Your task to perform on an android device: turn on wifi Image 0: 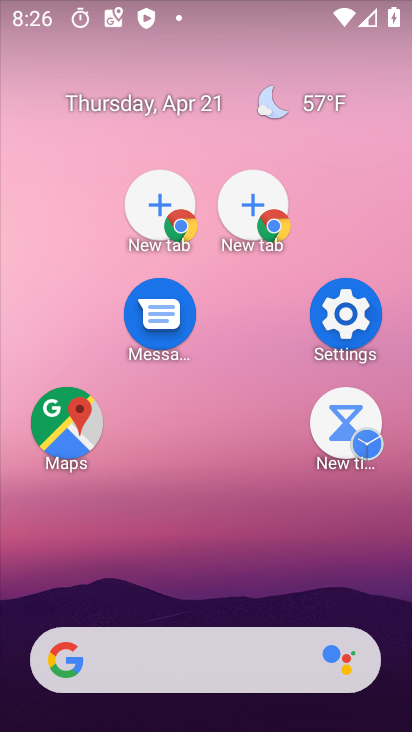
Step 0: drag from (333, 731) to (233, 23)
Your task to perform on an android device: turn on wifi Image 1: 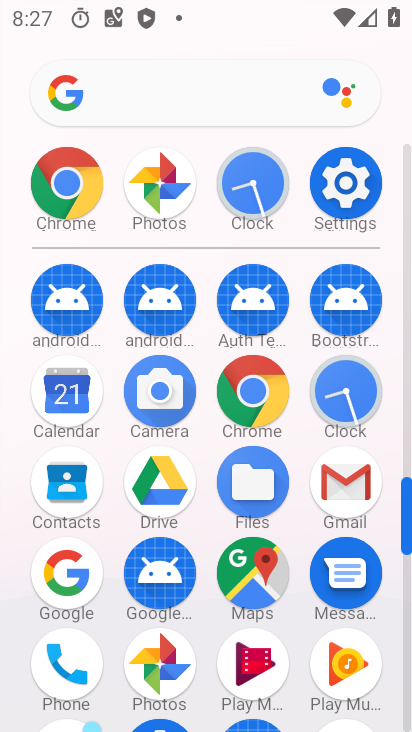
Step 1: click (360, 177)
Your task to perform on an android device: turn on wifi Image 2: 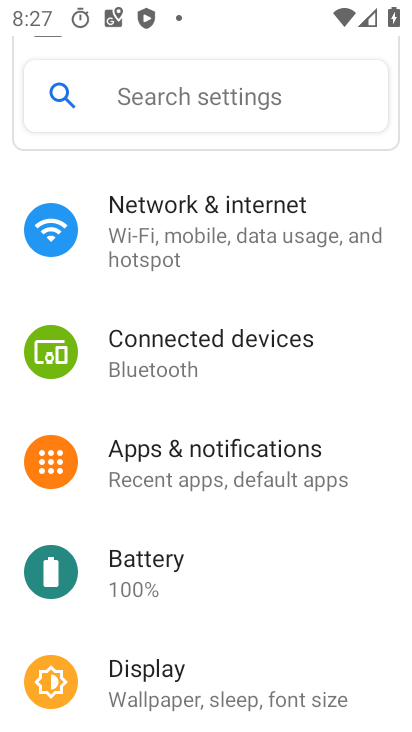
Step 2: click (202, 225)
Your task to perform on an android device: turn on wifi Image 3: 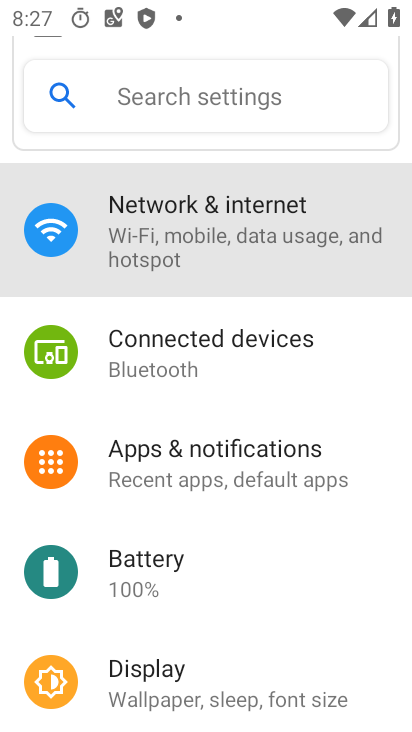
Step 3: click (202, 225)
Your task to perform on an android device: turn on wifi Image 4: 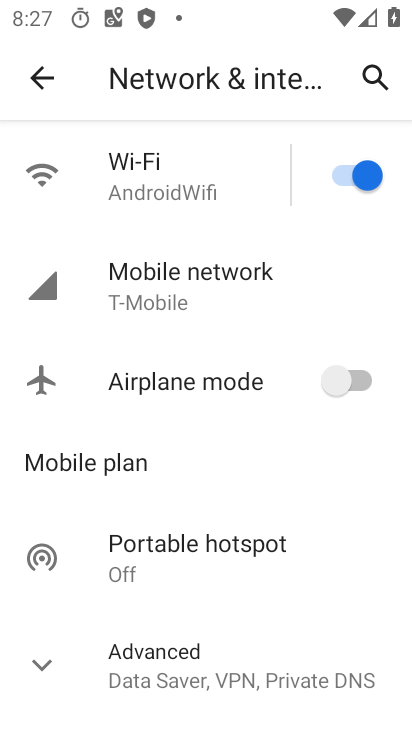
Step 4: task complete